Your task to perform on an android device: turn off location history Image 0: 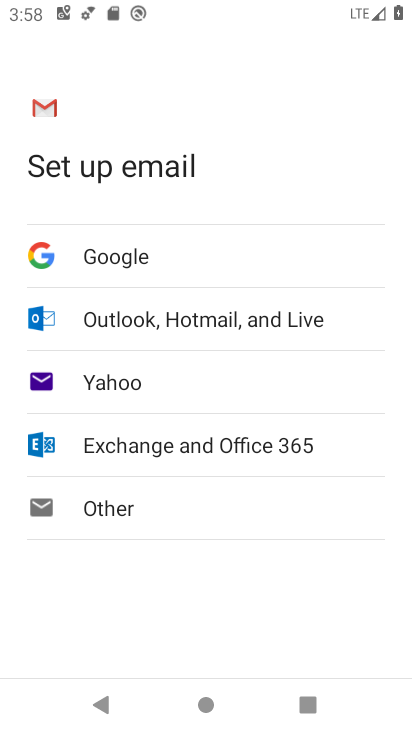
Step 0: press home button
Your task to perform on an android device: turn off location history Image 1: 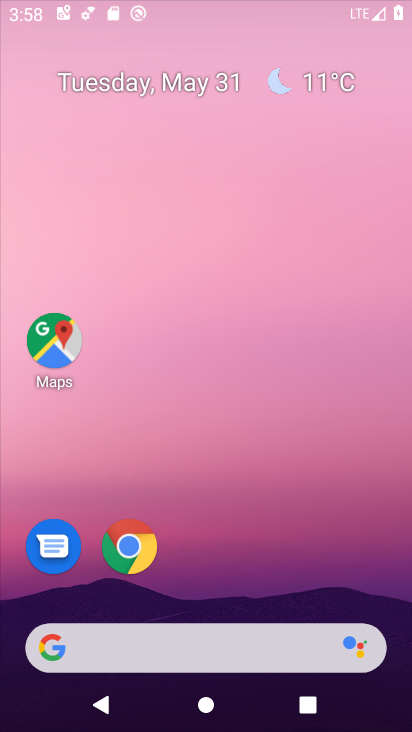
Step 1: drag from (308, 547) to (207, 48)
Your task to perform on an android device: turn off location history Image 2: 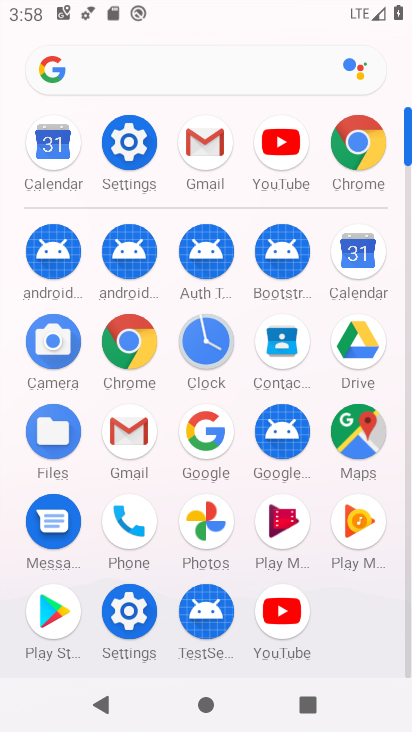
Step 2: click (111, 142)
Your task to perform on an android device: turn off location history Image 3: 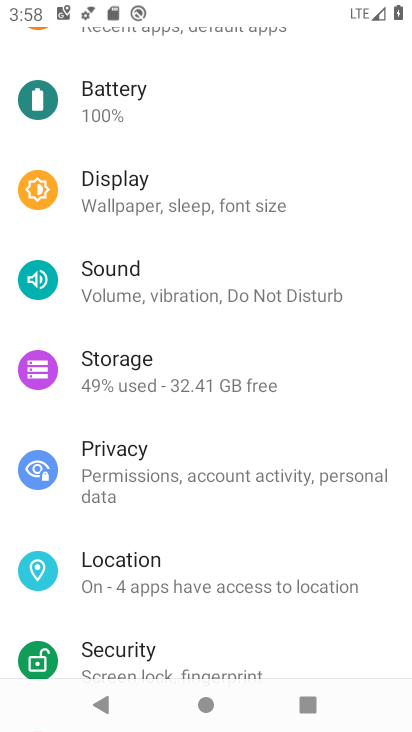
Step 3: click (206, 562)
Your task to perform on an android device: turn off location history Image 4: 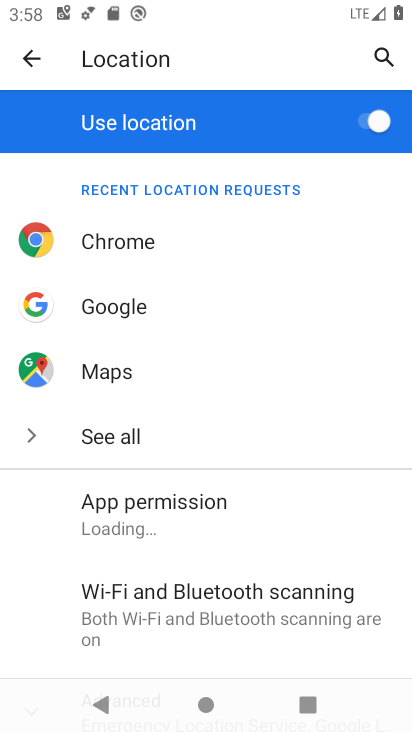
Step 4: drag from (263, 547) to (255, 156)
Your task to perform on an android device: turn off location history Image 5: 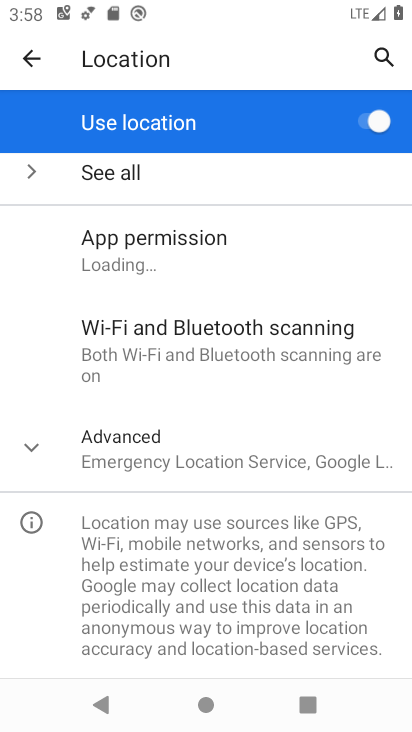
Step 5: click (228, 438)
Your task to perform on an android device: turn off location history Image 6: 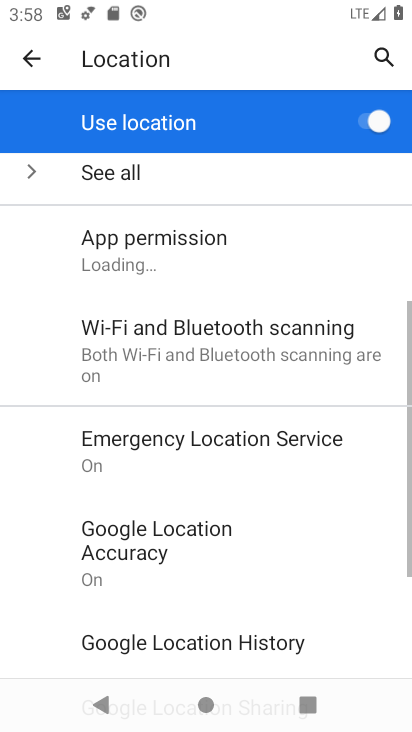
Step 6: drag from (240, 562) to (237, 287)
Your task to perform on an android device: turn off location history Image 7: 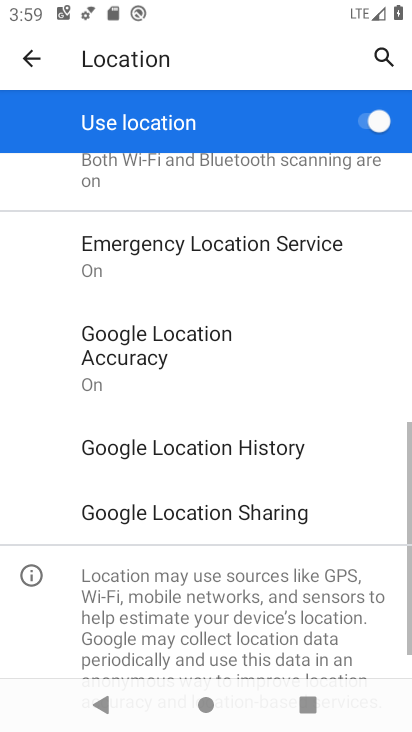
Step 7: click (222, 434)
Your task to perform on an android device: turn off location history Image 8: 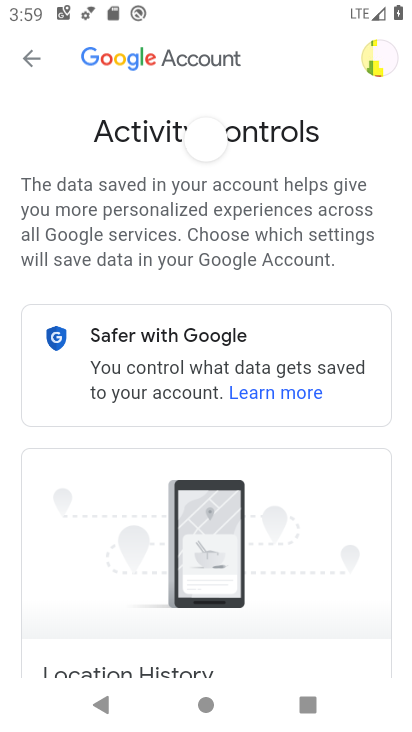
Step 8: task complete